Your task to perform on an android device: move an email to a new category in the gmail app Image 0: 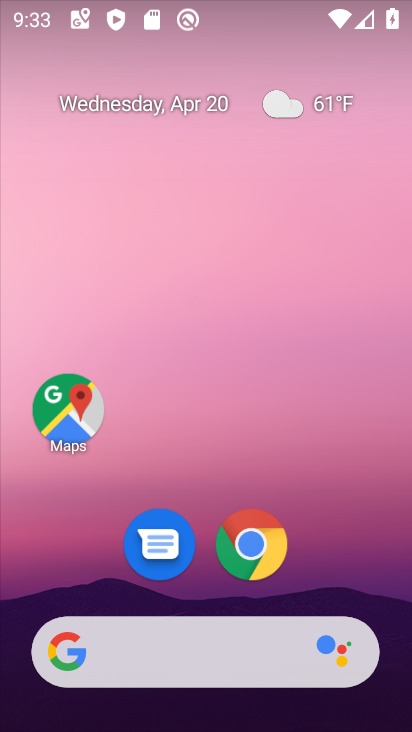
Step 0: drag from (348, 582) to (306, 4)
Your task to perform on an android device: move an email to a new category in the gmail app Image 1: 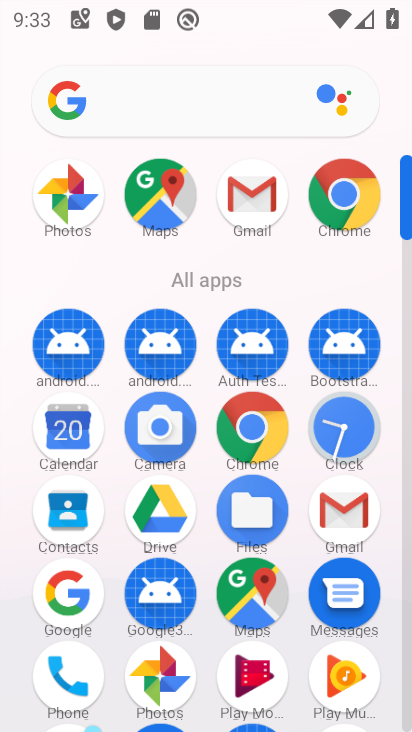
Step 1: click (348, 512)
Your task to perform on an android device: move an email to a new category in the gmail app Image 2: 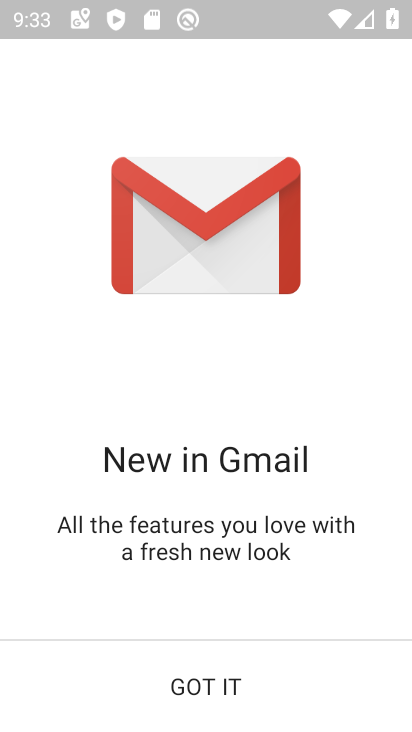
Step 2: click (230, 672)
Your task to perform on an android device: move an email to a new category in the gmail app Image 3: 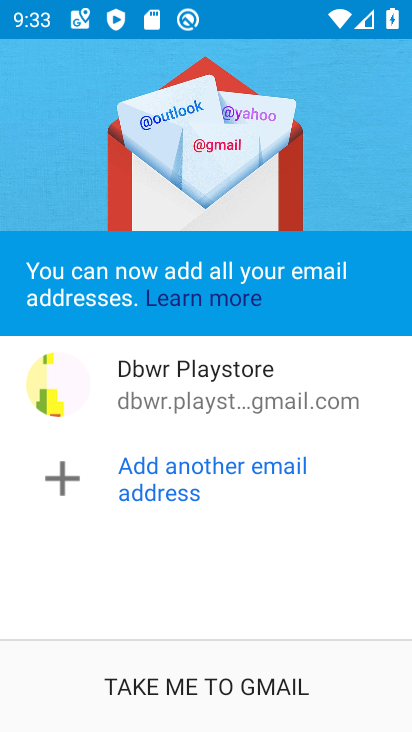
Step 3: click (249, 703)
Your task to perform on an android device: move an email to a new category in the gmail app Image 4: 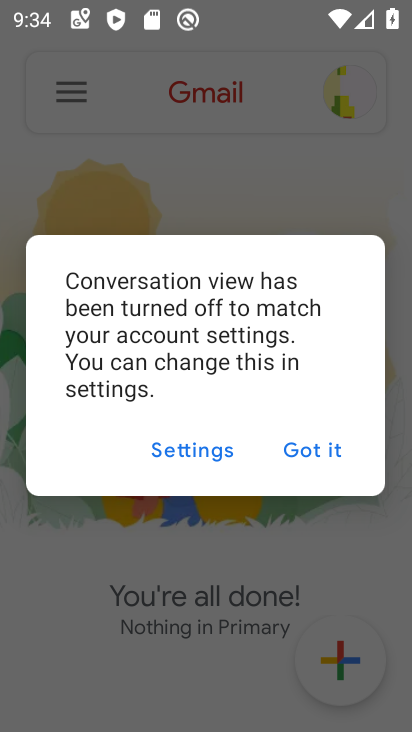
Step 4: click (321, 451)
Your task to perform on an android device: move an email to a new category in the gmail app Image 5: 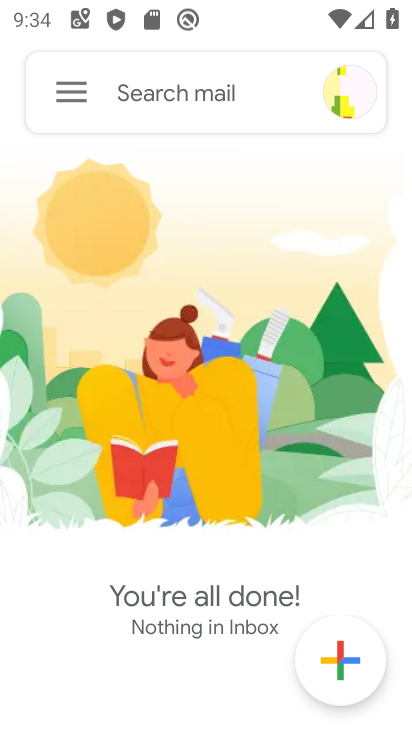
Step 5: click (76, 112)
Your task to perform on an android device: move an email to a new category in the gmail app Image 6: 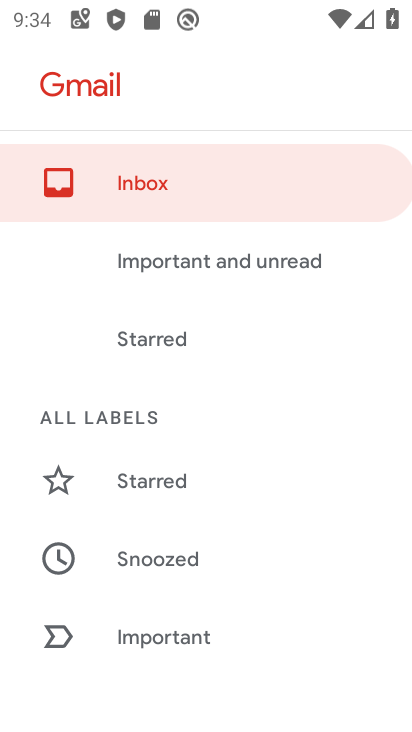
Step 6: drag from (111, 495) to (171, 138)
Your task to perform on an android device: move an email to a new category in the gmail app Image 7: 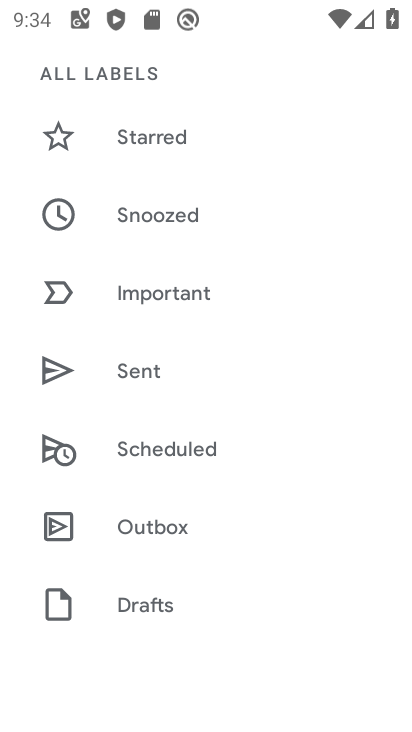
Step 7: drag from (189, 559) to (216, 182)
Your task to perform on an android device: move an email to a new category in the gmail app Image 8: 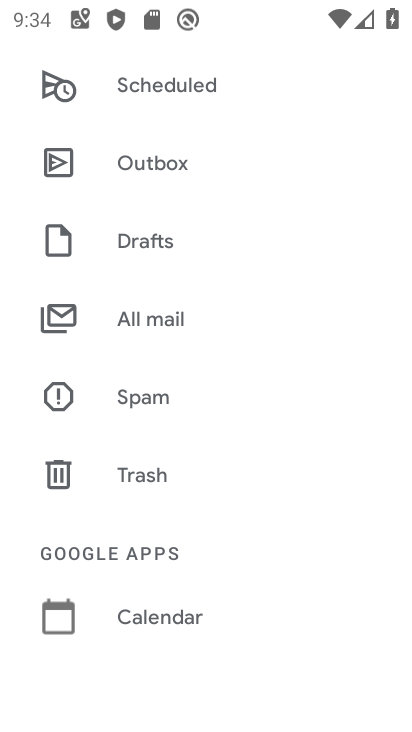
Step 8: click (169, 334)
Your task to perform on an android device: move an email to a new category in the gmail app Image 9: 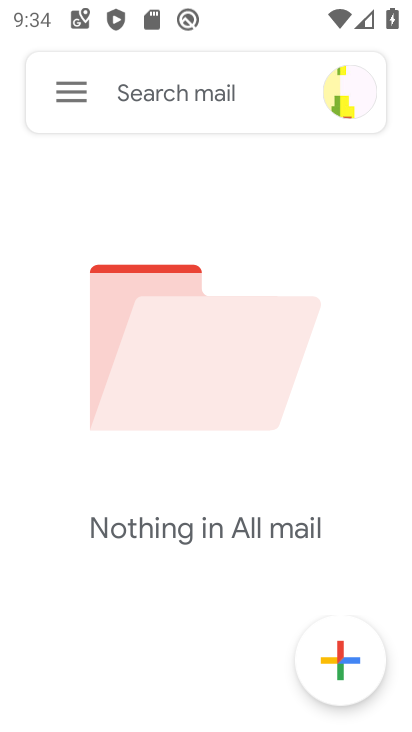
Step 9: task complete